Your task to perform on an android device: choose inbox layout in the gmail app Image 0: 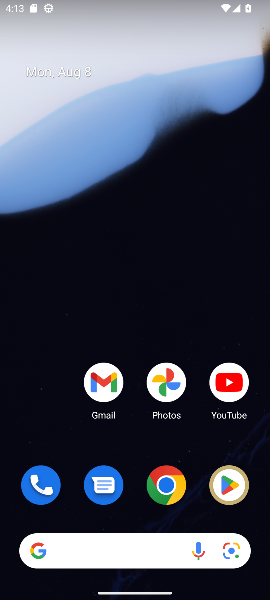
Step 0: drag from (174, 557) to (166, 192)
Your task to perform on an android device: choose inbox layout in the gmail app Image 1: 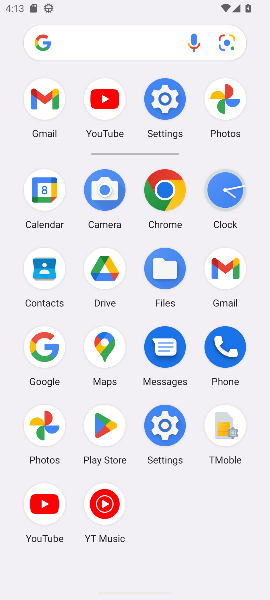
Step 1: drag from (122, 239) to (114, 165)
Your task to perform on an android device: choose inbox layout in the gmail app Image 2: 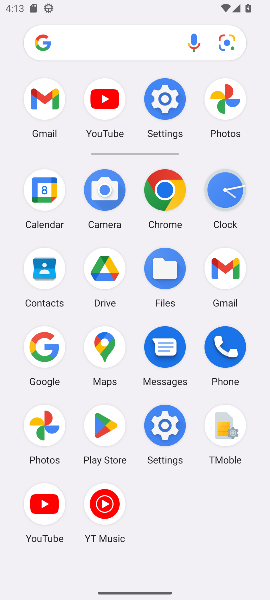
Step 2: click (225, 268)
Your task to perform on an android device: choose inbox layout in the gmail app Image 3: 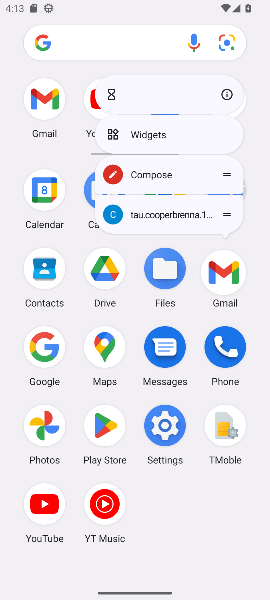
Step 3: click (223, 274)
Your task to perform on an android device: choose inbox layout in the gmail app Image 4: 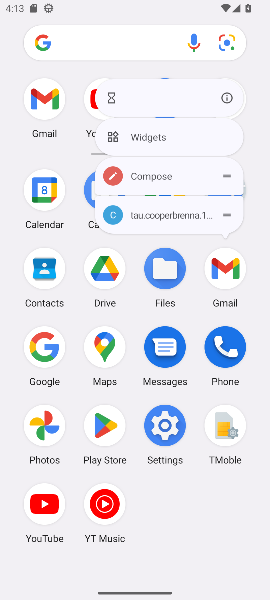
Step 4: click (223, 274)
Your task to perform on an android device: choose inbox layout in the gmail app Image 5: 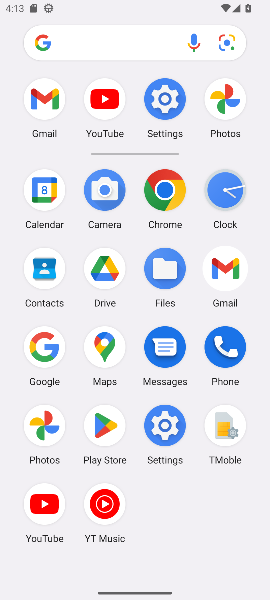
Step 5: click (223, 274)
Your task to perform on an android device: choose inbox layout in the gmail app Image 6: 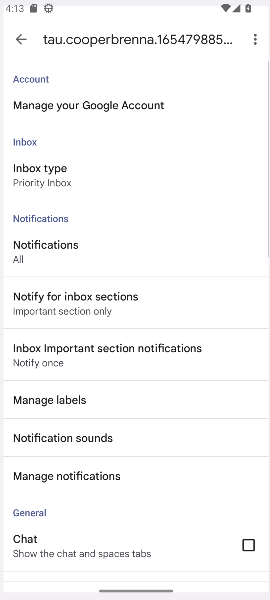
Step 6: click (223, 274)
Your task to perform on an android device: choose inbox layout in the gmail app Image 7: 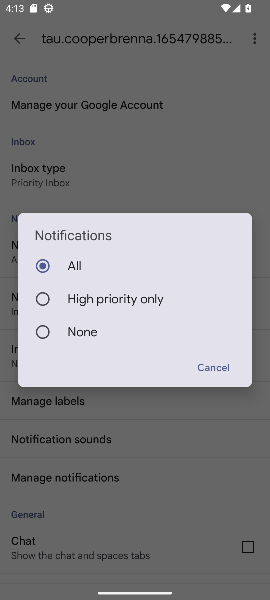
Step 7: click (204, 378)
Your task to perform on an android device: choose inbox layout in the gmail app Image 8: 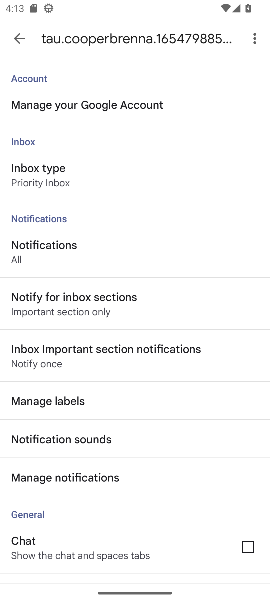
Step 8: click (41, 178)
Your task to perform on an android device: choose inbox layout in the gmail app Image 9: 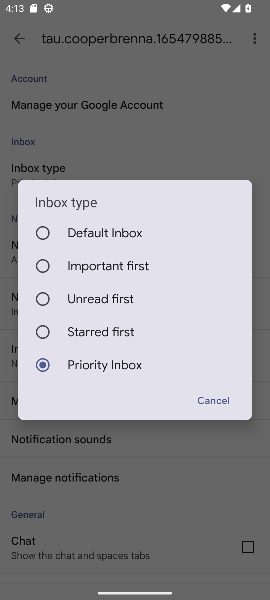
Step 9: click (47, 236)
Your task to perform on an android device: choose inbox layout in the gmail app Image 10: 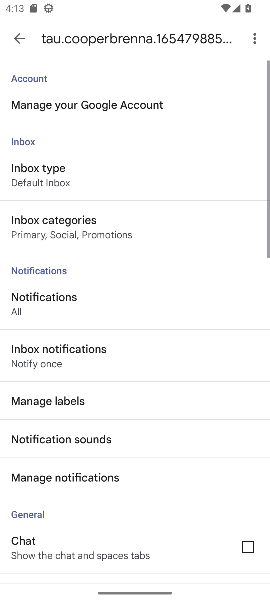
Step 10: task complete